Your task to perform on an android device: Open settings Image 0: 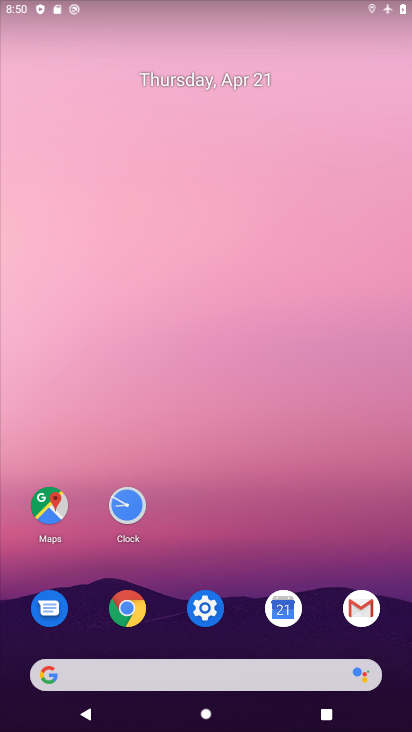
Step 0: click (207, 612)
Your task to perform on an android device: Open settings Image 1: 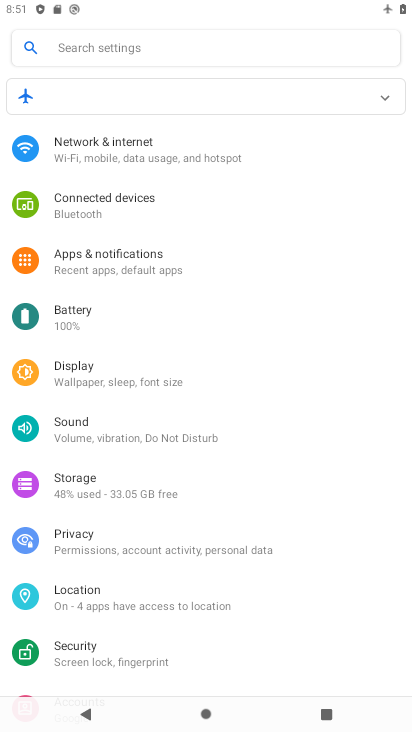
Step 1: task complete